Your task to perform on an android device: Turn off the flashlight Image 0: 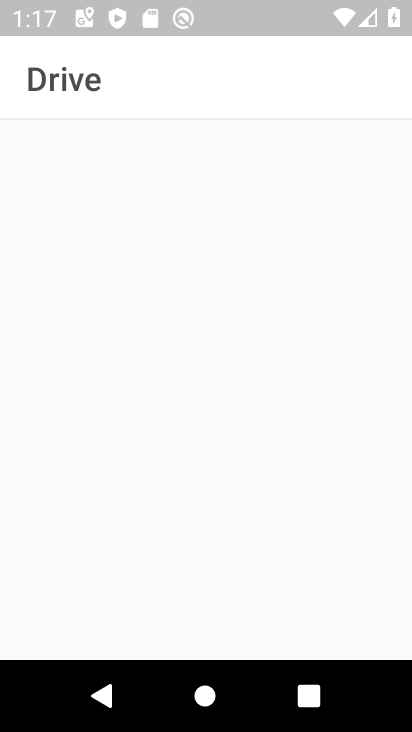
Step 0: press home button
Your task to perform on an android device: Turn off the flashlight Image 1: 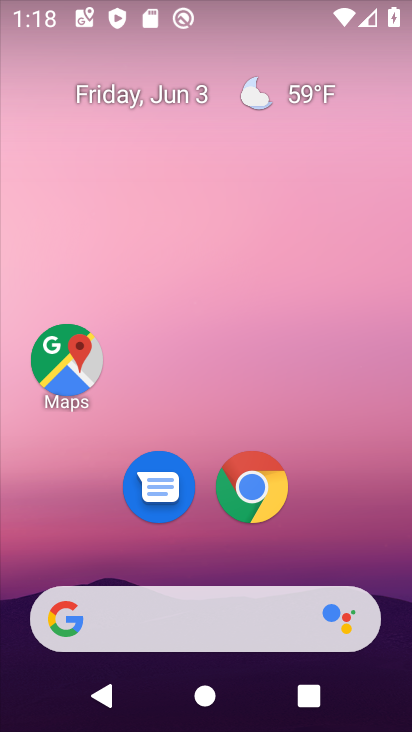
Step 1: drag from (197, 557) to (243, 3)
Your task to perform on an android device: Turn off the flashlight Image 2: 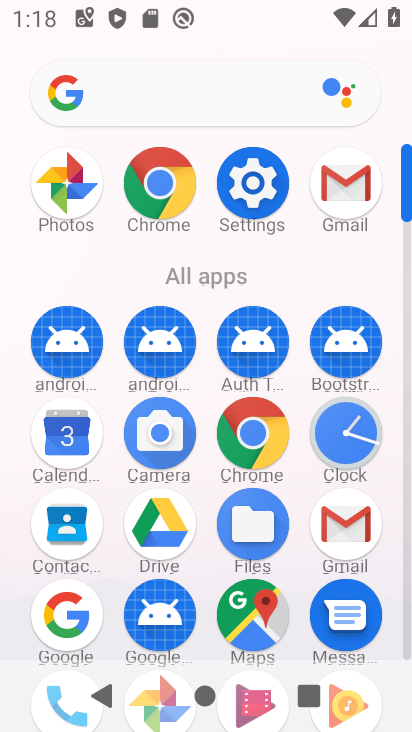
Step 2: click (249, 178)
Your task to perform on an android device: Turn off the flashlight Image 3: 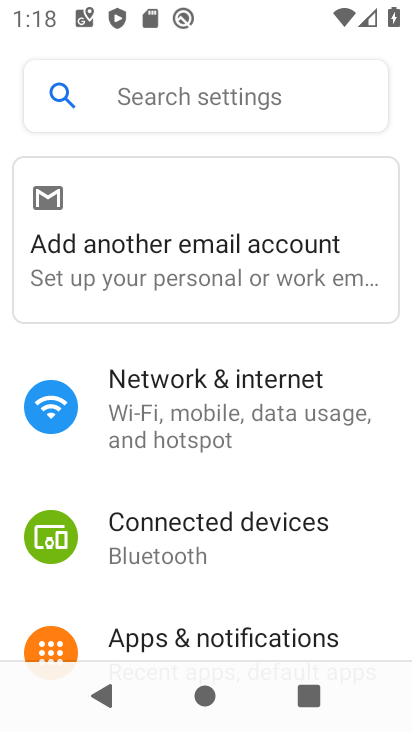
Step 3: click (174, 85)
Your task to perform on an android device: Turn off the flashlight Image 4: 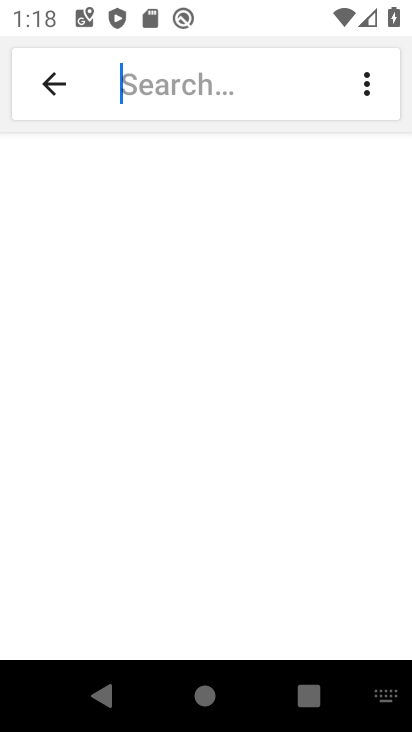
Step 4: type "flashlight"
Your task to perform on an android device: Turn off the flashlight Image 5: 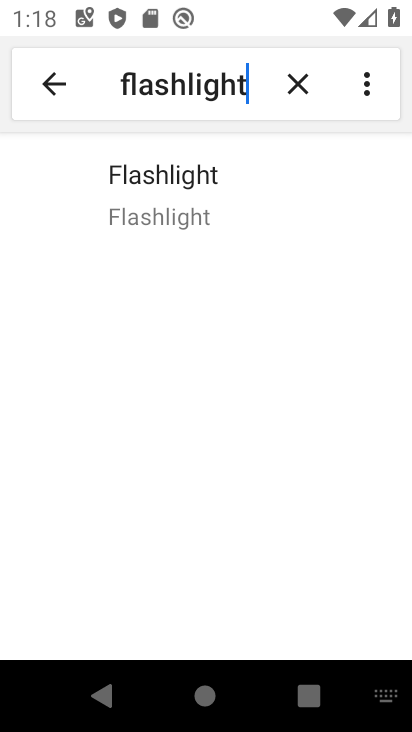
Step 5: click (223, 193)
Your task to perform on an android device: Turn off the flashlight Image 6: 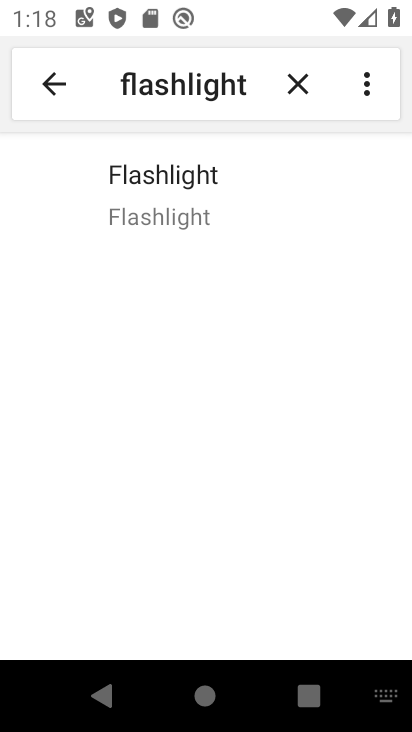
Step 6: task complete